Your task to perform on an android device: Search for a new foundation (skincare) product Image 0: 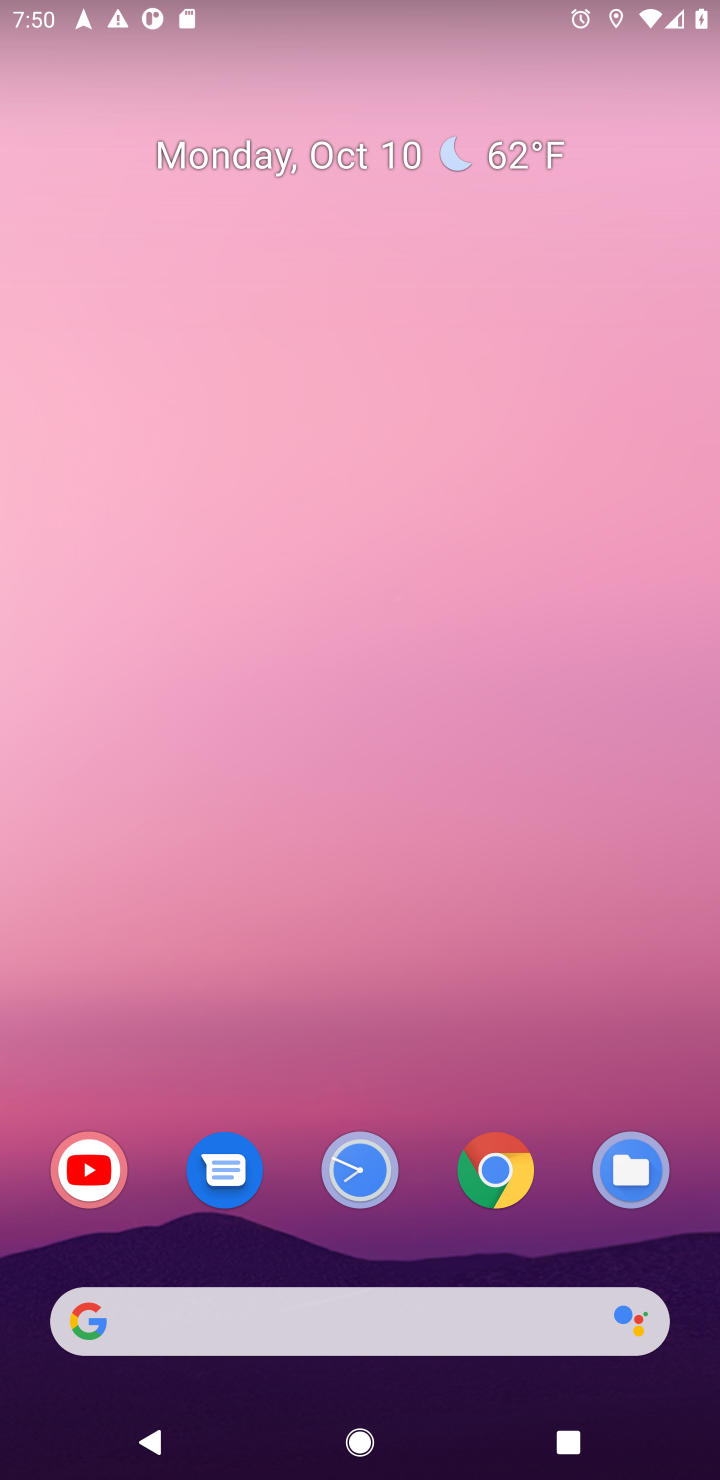
Step 0: click (498, 1164)
Your task to perform on an android device: Search for a new foundation (skincare) product Image 1: 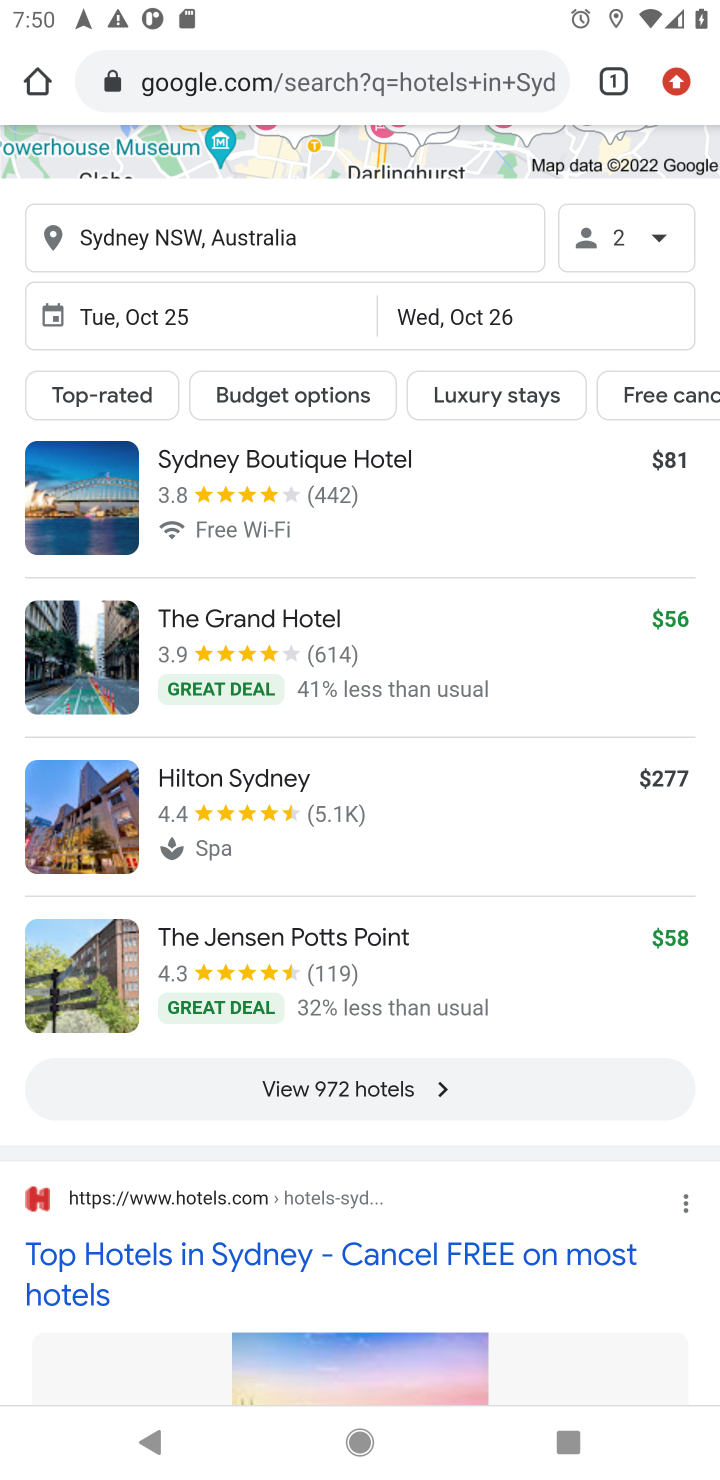
Step 1: click (429, 83)
Your task to perform on an android device: Search for a new foundation (skincare) product Image 2: 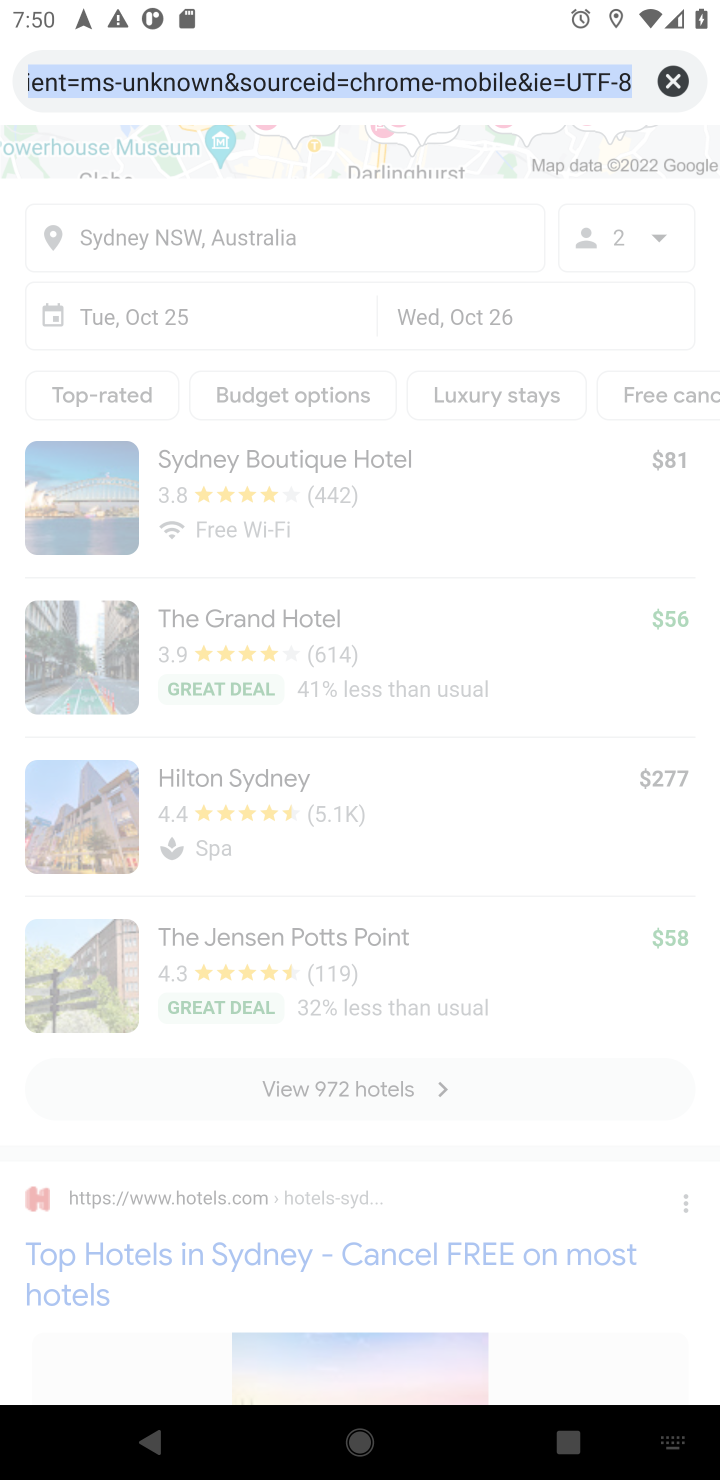
Step 2: type "new foundation (skincare) product"
Your task to perform on an android device: Search for a new foundation (skincare) product Image 3: 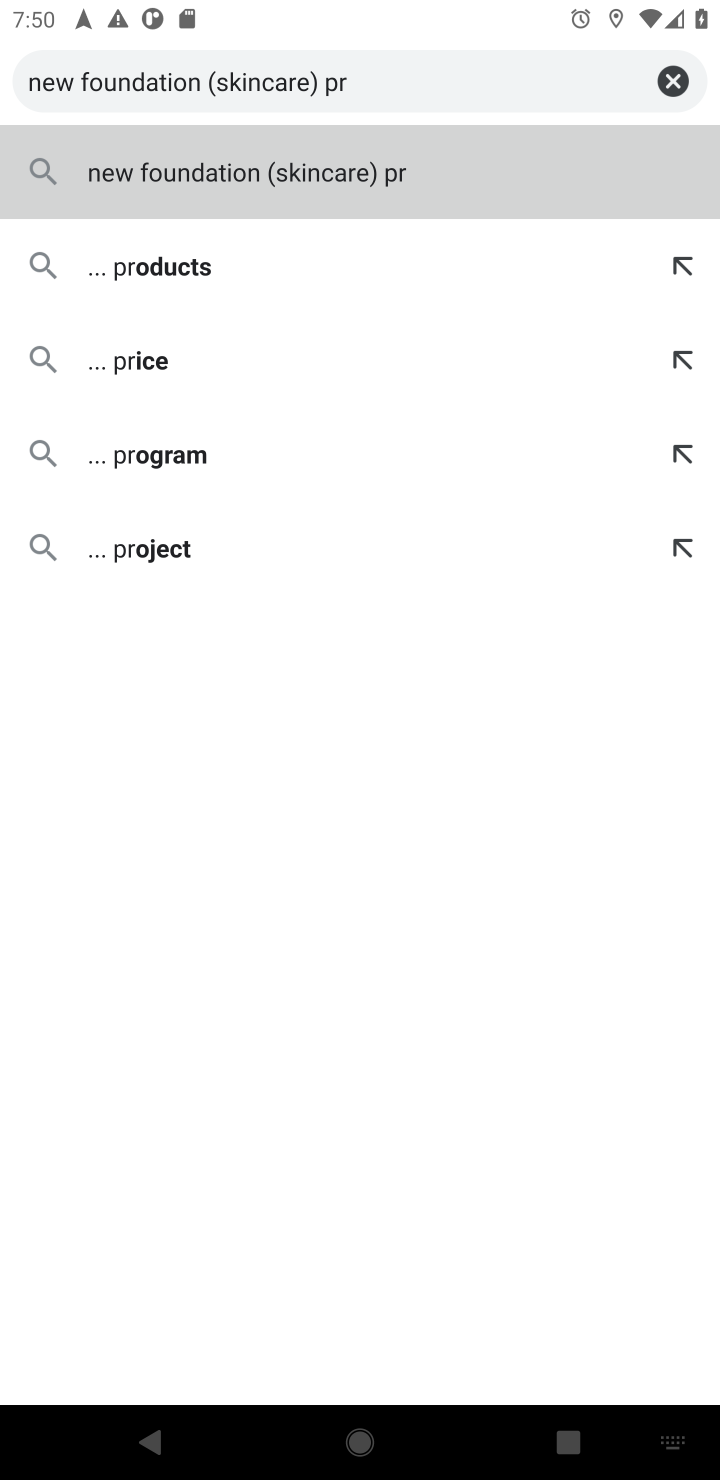
Step 3: type "oduct"
Your task to perform on an android device: Search for a new foundation (skincare) product Image 4: 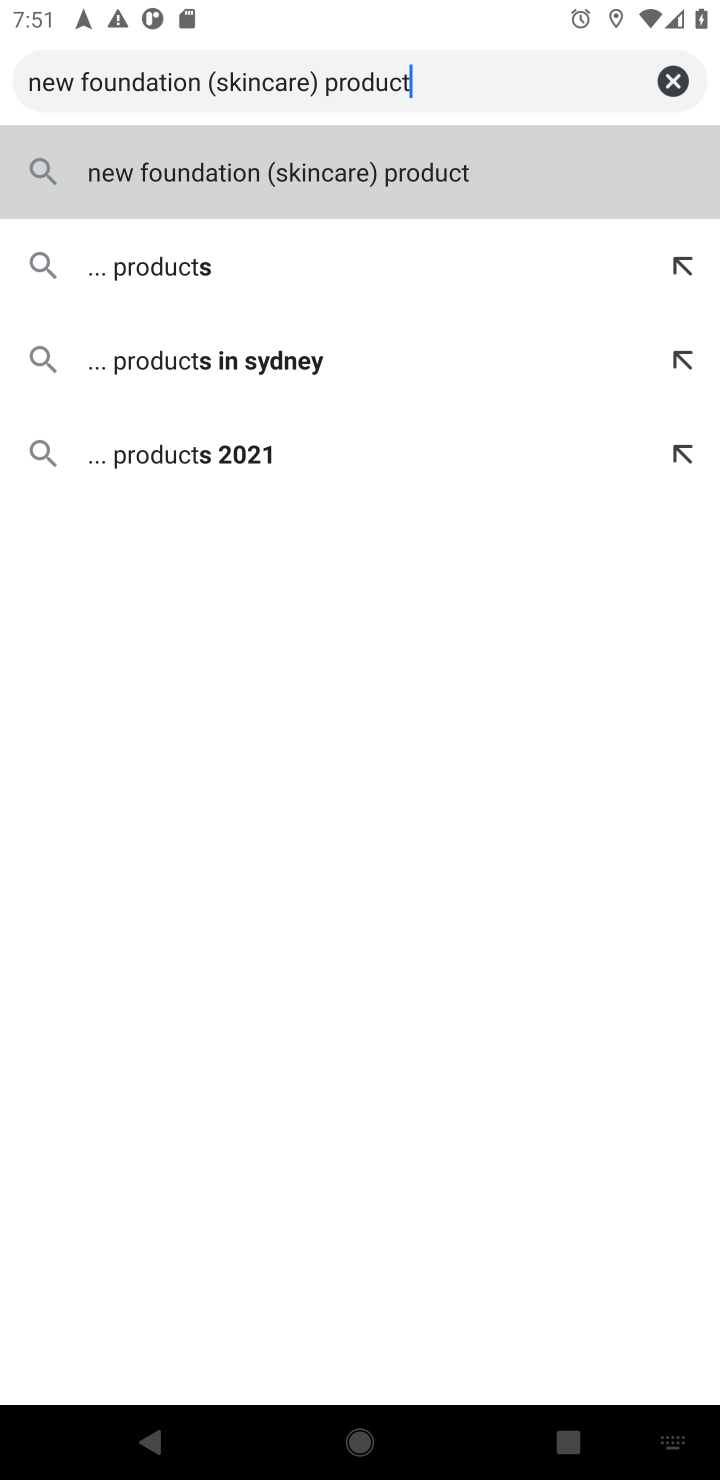
Step 4: click (378, 157)
Your task to perform on an android device: Search for a new foundation (skincare) product Image 5: 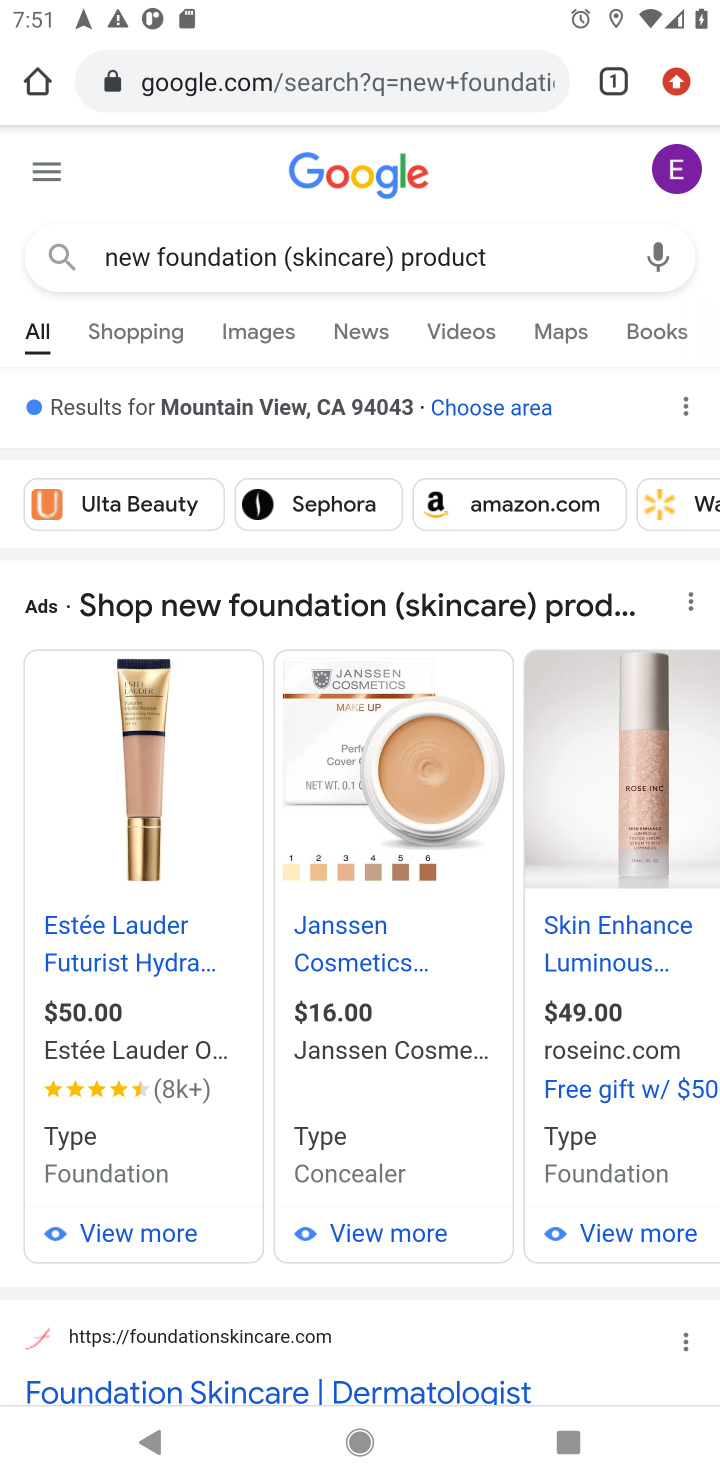
Step 5: task complete